Your task to perform on an android device: change the upload size in google photos Image 0: 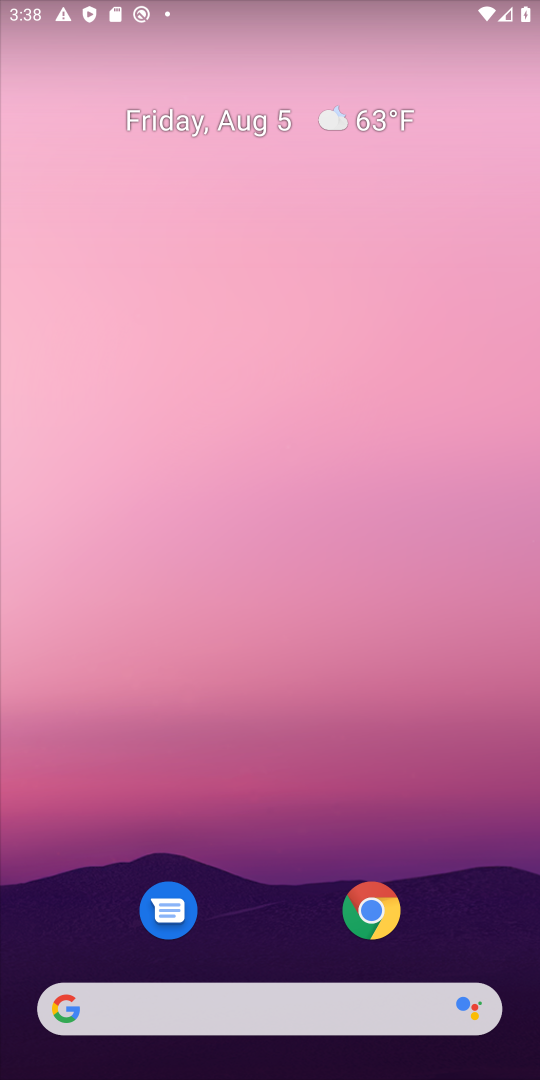
Step 0: drag from (493, 926) to (333, 141)
Your task to perform on an android device: change the upload size in google photos Image 1: 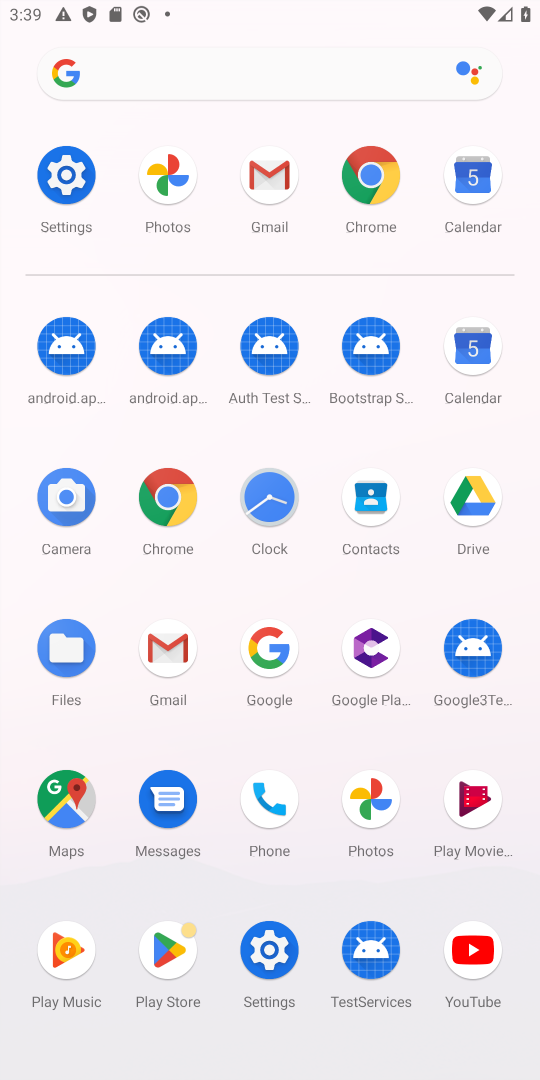
Step 1: click (383, 790)
Your task to perform on an android device: change the upload size in google photos Image 2: 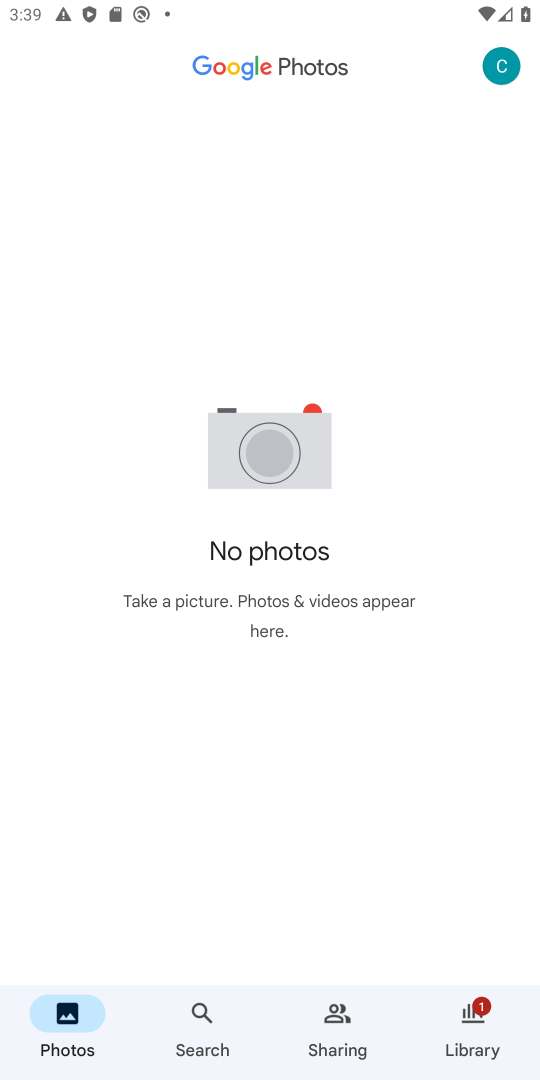
Step 2: click (497, 54)
Your task to perform on an android device: change the upload size in google photos Image 3: 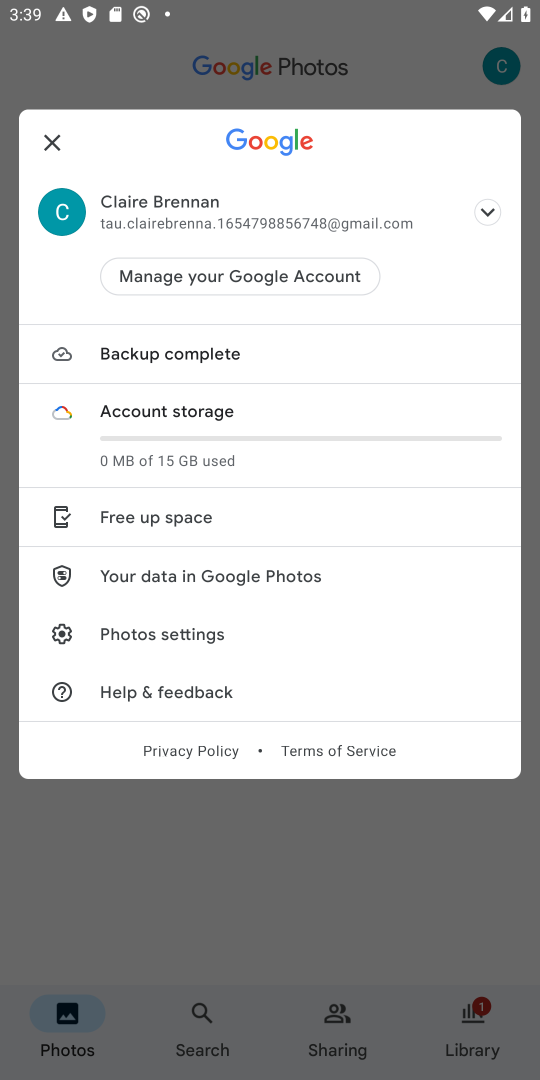
Step 3: click (193, 622)
Your task to perform on an android device: change the upload size in google photos Image 4: 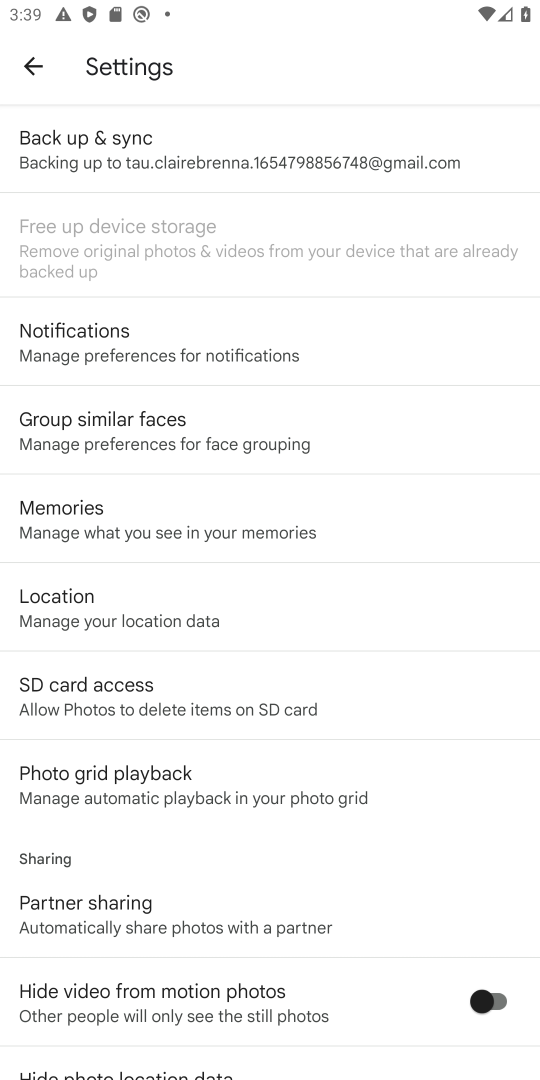
Step 4: click (194, 160)
Your task to perform on an android device: change the upload size in google photos Image 5: 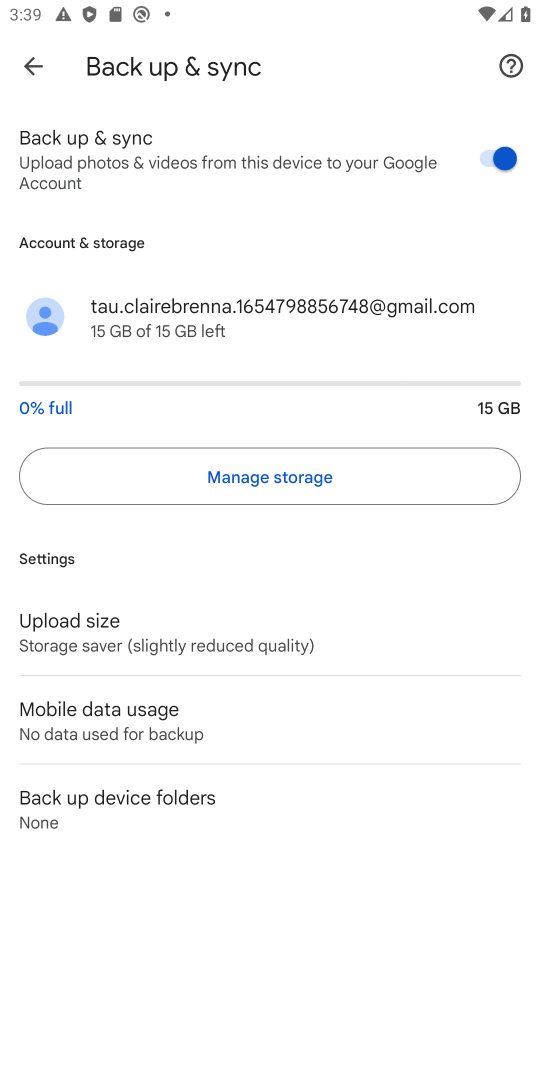
Step 5: click (205, 650)
Your task to perform on an android device: change the upload size in google photos Image 6: 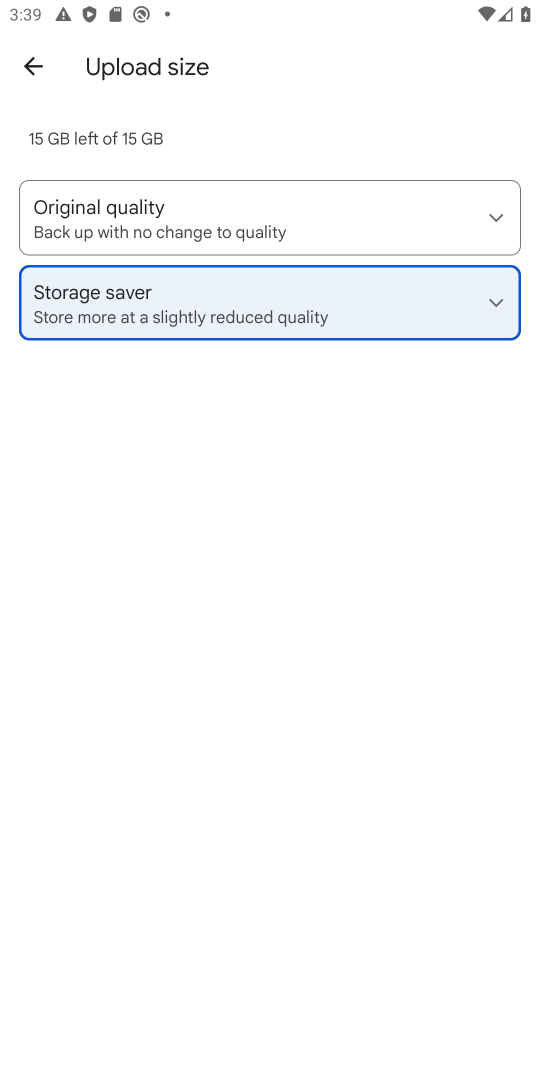
Step 6: click (192, 234)
Your task to perform on an android device: change the upload size in google photos Image 7: 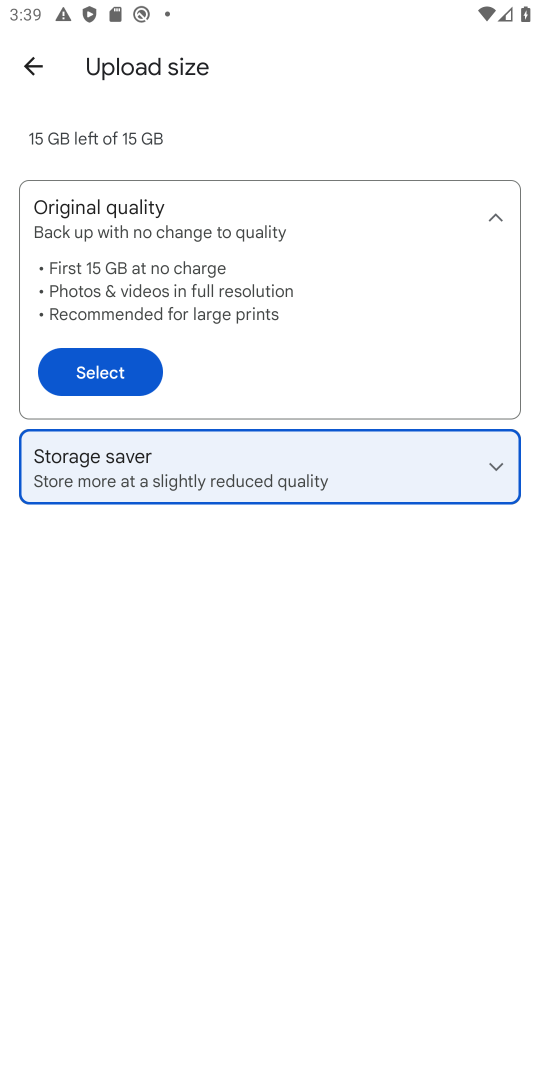
Step 7: click (108, 384)
Your task to perform on an android device: change the upload size in google photos Image 8: 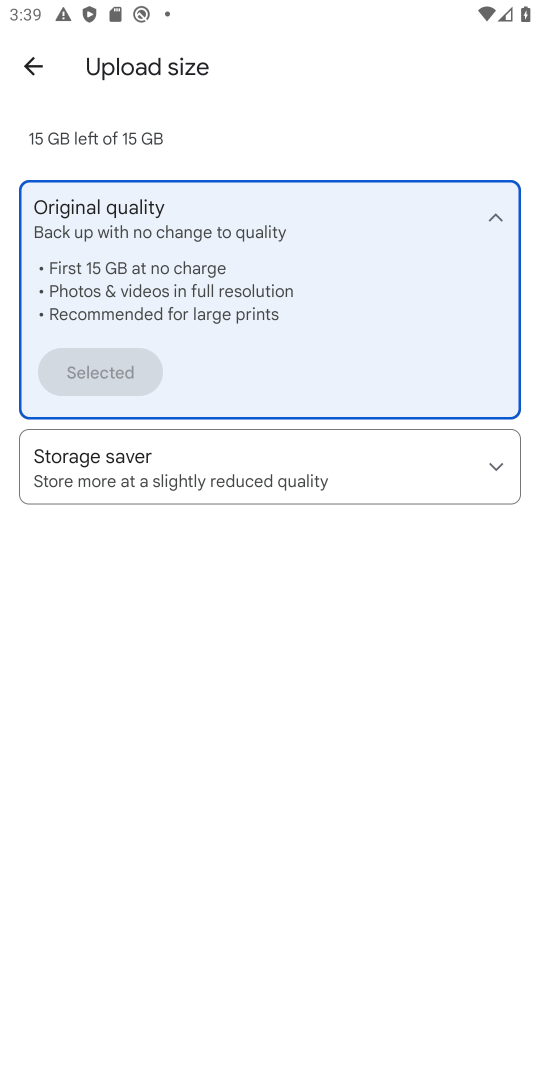
Step 8: task complete